Your task to perform on an android device: open app "Google Chrome" Image 0: 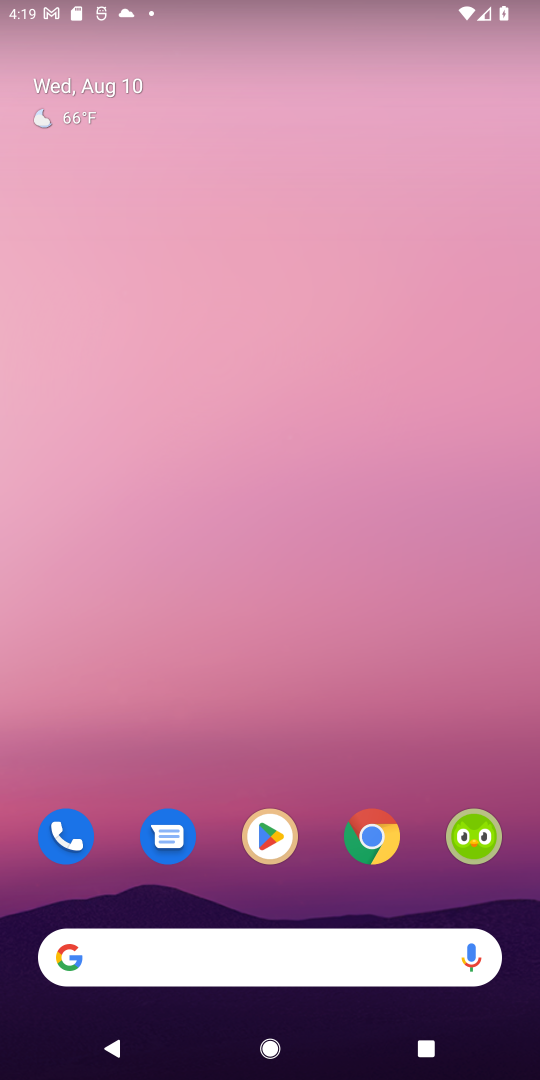
Step 0: drag from (347, 922) to (342, 295)
Your task to perform on an android device: open app "Google Chrome" Image 1: 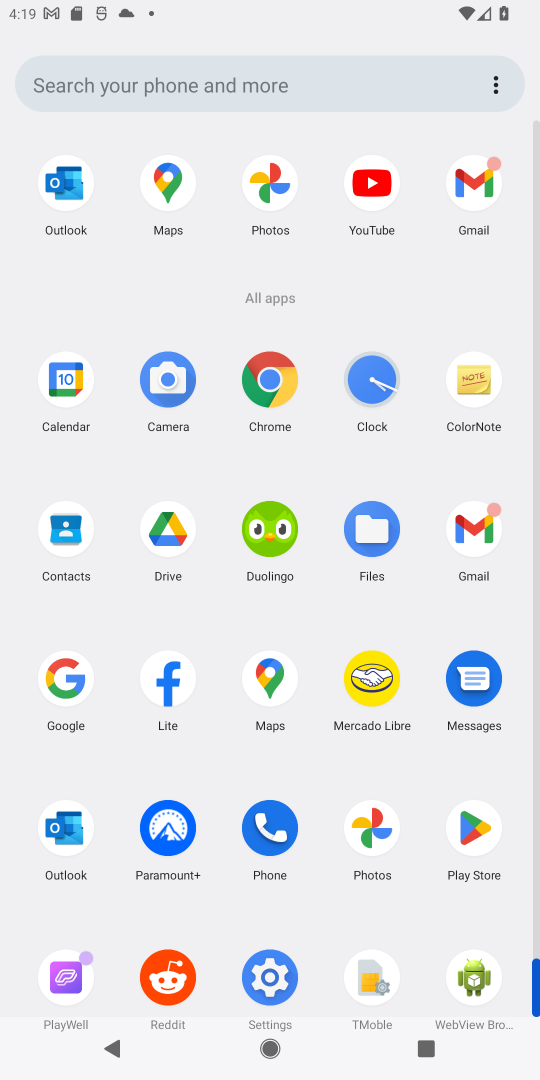
Step 1: click (56, 691)
Your task to perform on an android device: open app "Google Chrome" Image 2: 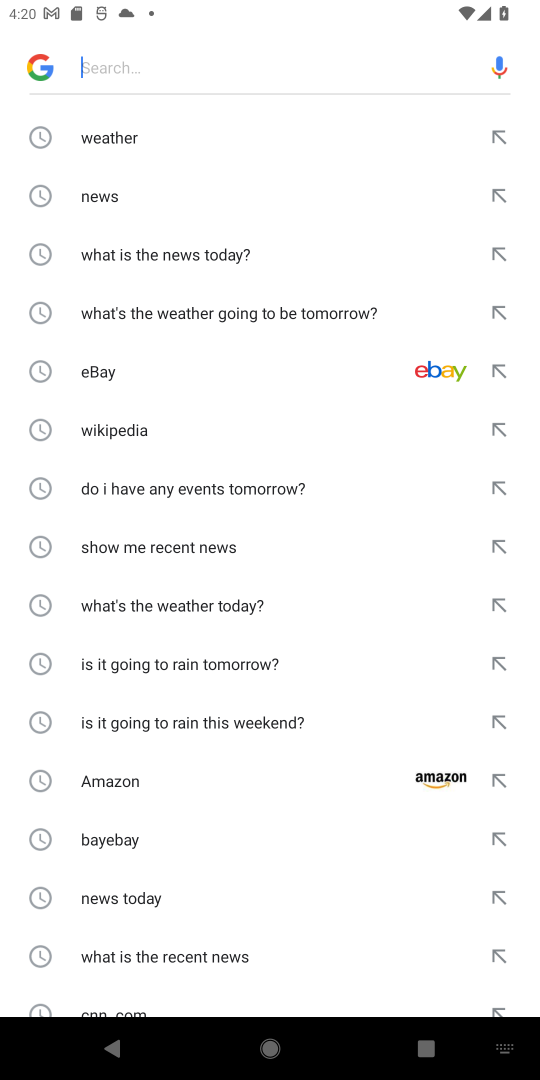
Step 2: press home button
Your task to perform on an android device: open app "Google Chrome" Image 3: 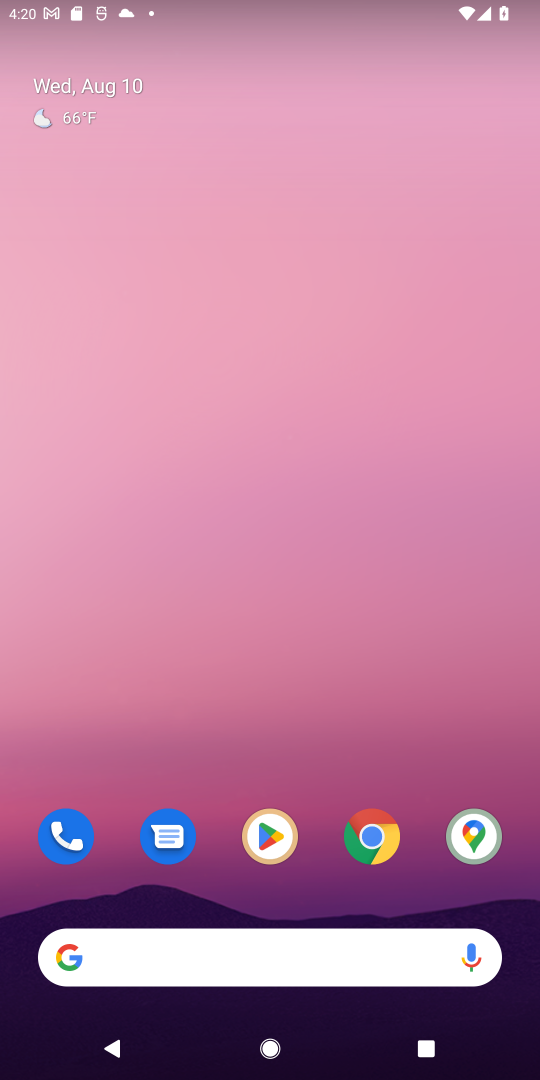
Step 3: drag from (243, 923) to (304, 390)
Your task to perform on an android device: open app "Google Chrome" Image 4: 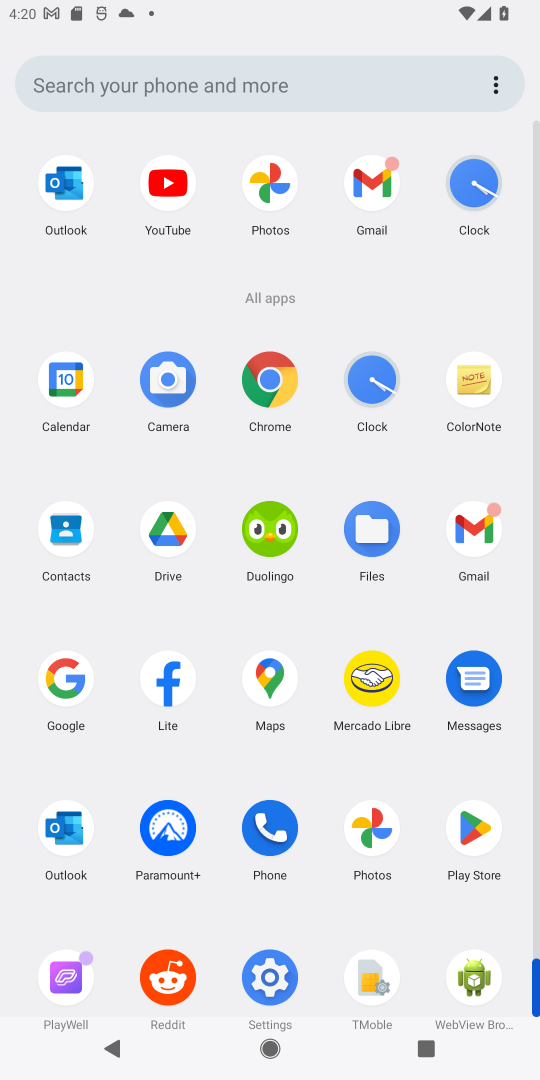
Step 4: click (79, 665)
Your task to perform on an android device: open app "Google Chrome" Image 5: 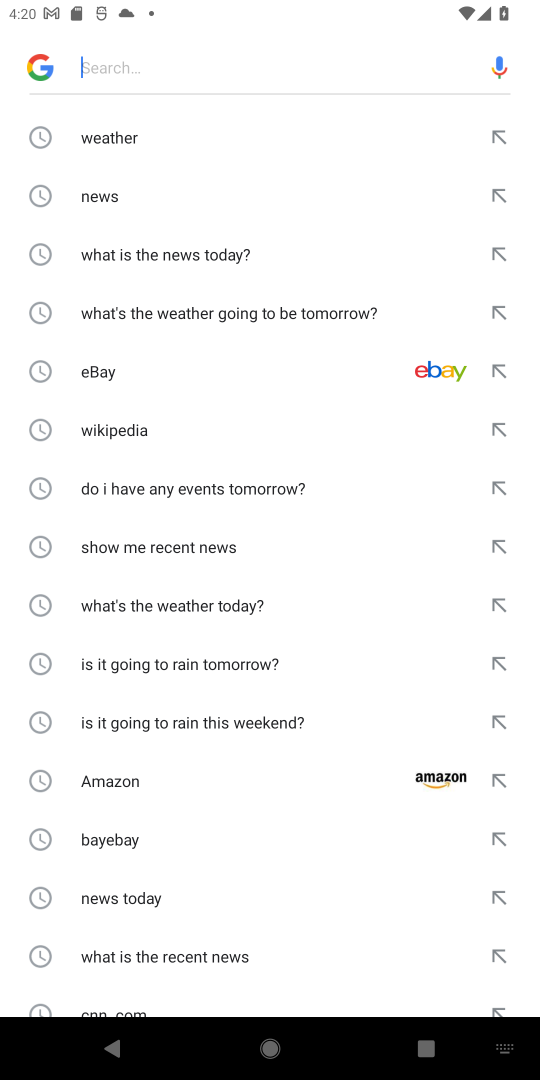
Step 5: task complete